Your task to perform on an android device: see tabs open on other devices in the chrome app Image 0: 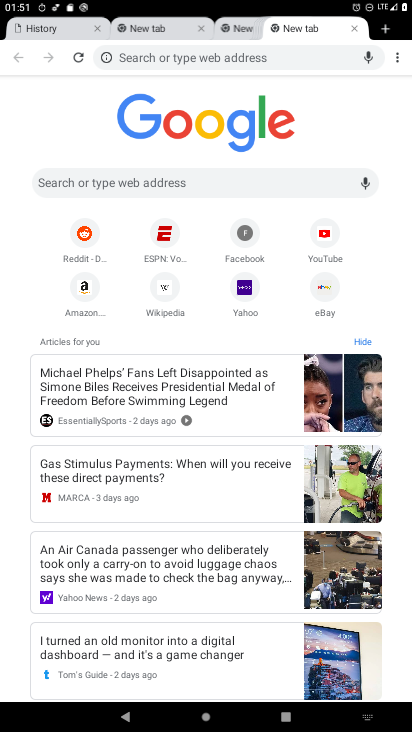
Step 0: press home button
Your task to perform on an android device: see tabs open on other devices in the chrome app Image 1: 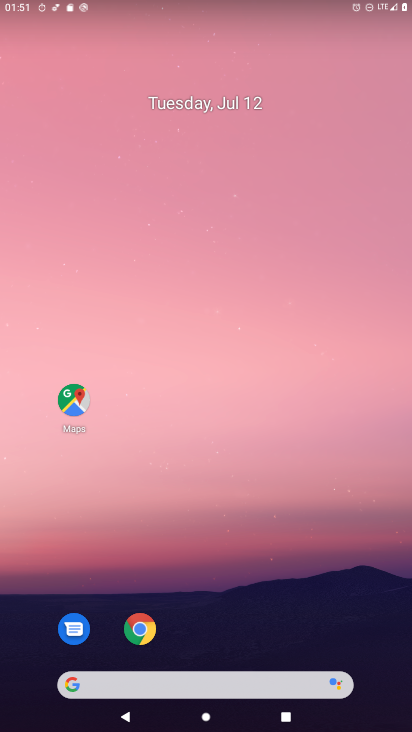
Step 1: click (144, 688)
Your task to perform on an android device: see tabs open on other devices in the chrome app Image 2: 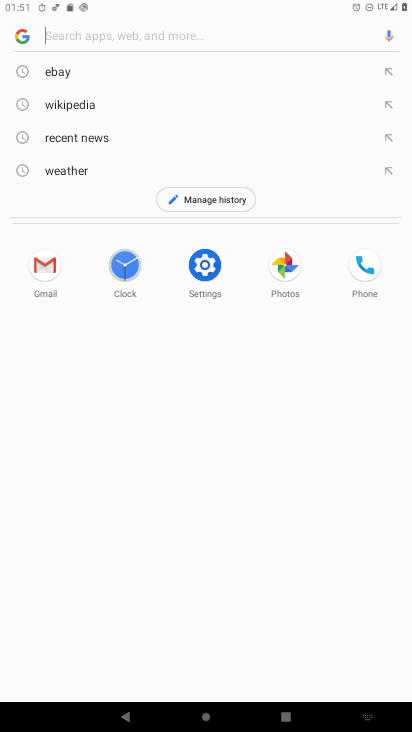
Step 2: task complete